Your task to perform on an android device: Open the web browser Image 0: 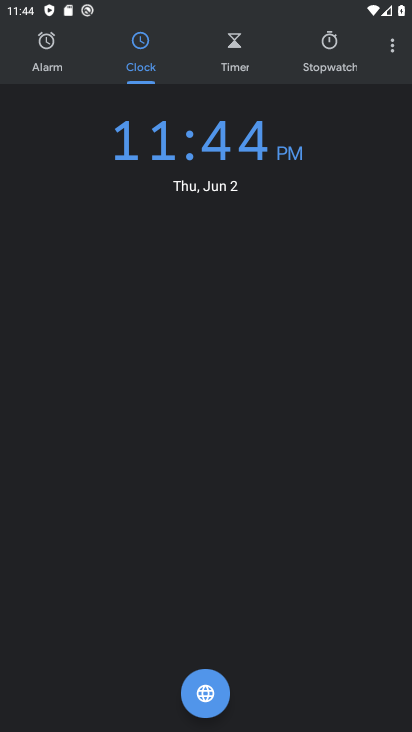
Step 0: press home button
Your task to perform on an android device: Open the web browser Image 1: 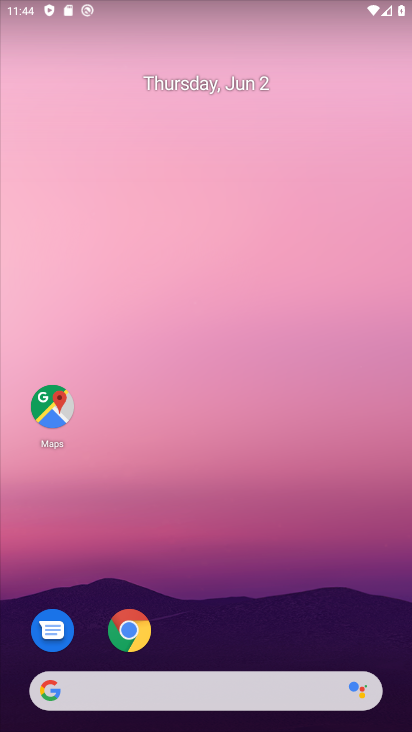
Step 1: drag from (225, 681) to (332, 86)
Your task to perform on an android device: Open the web browser Image 2: 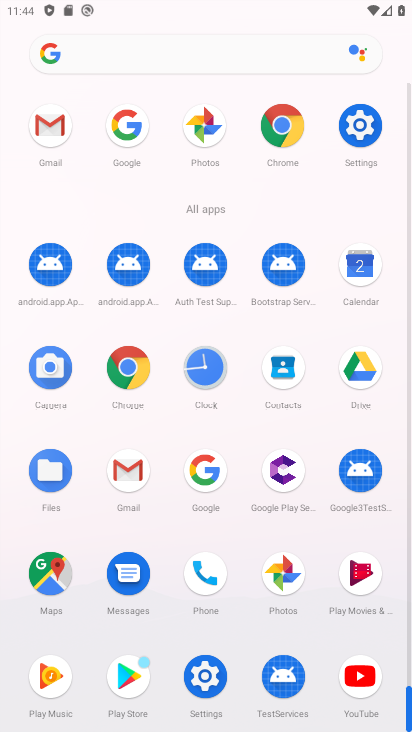
Step 2: click (192, 478)
Your task to perform on an android device: Open the web browser Image 3: 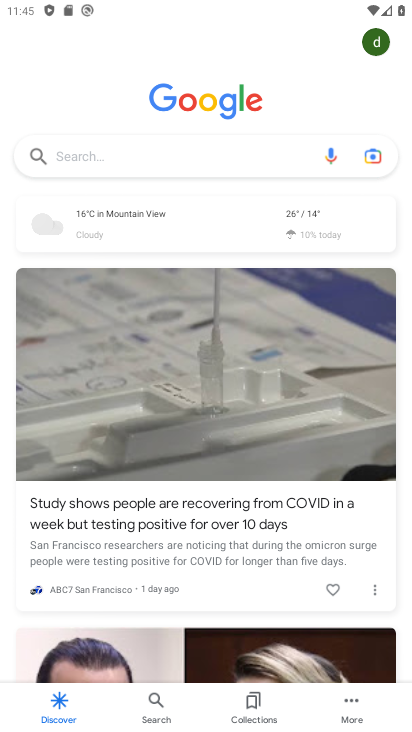
Step 3: task complete